Your task to perform on an android device: Search for seafood restaurants on Google Maps Image 0: 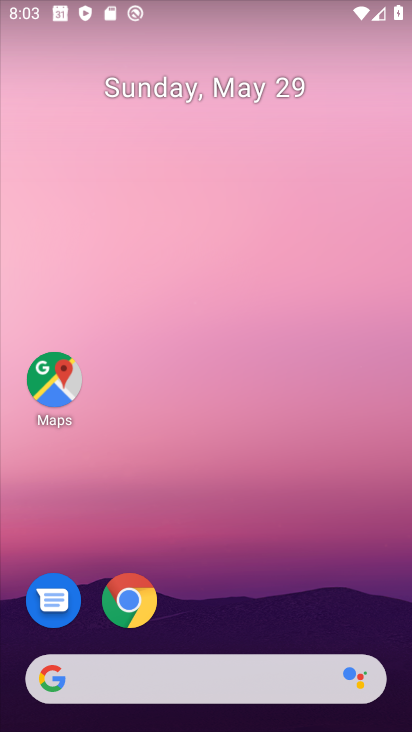
Step 0: drag from (290, 570) to (302, 113)
Your task to perform on an android device: Search for seafood restaurants on Google Maps Image 1: 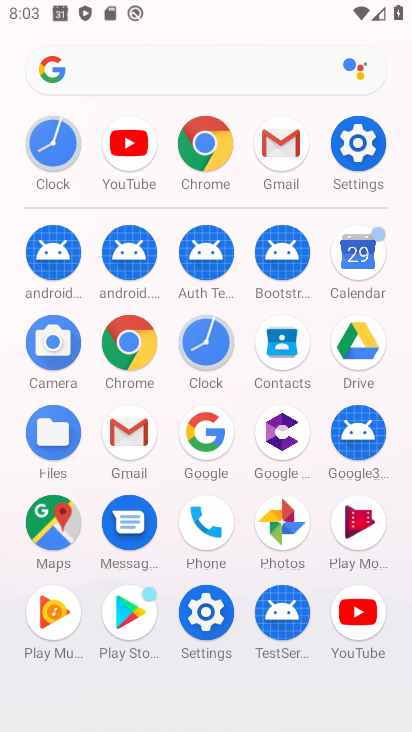
Step 1: click (49, 511)
Your task to perform on an android device: Search for seafood restaurants on Google Maps Image 2: 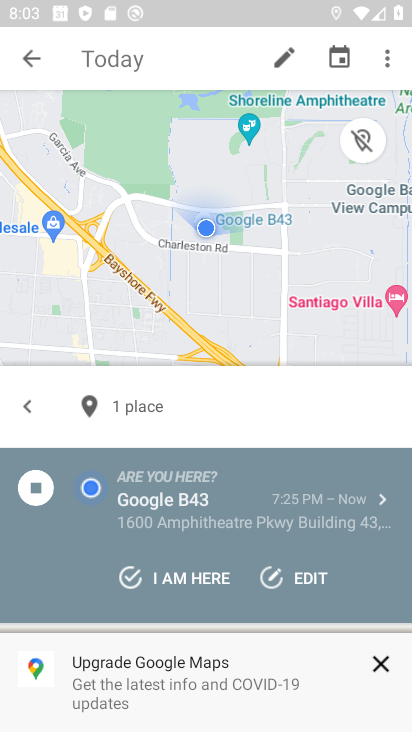
Step 2: click (40, 58)
Your task to perform on an android device: Search for seafood restaurants on Google Maps Image 3: 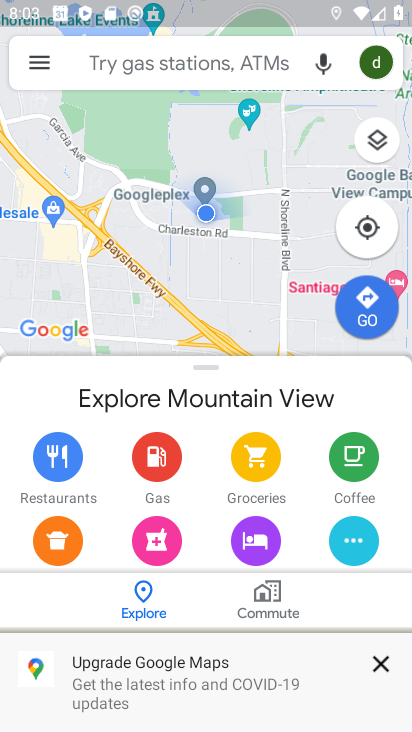
Step 3: click (149, 71)
Your task to perform on an android device: Search for seafood restaurants on Google Maps Image 4: 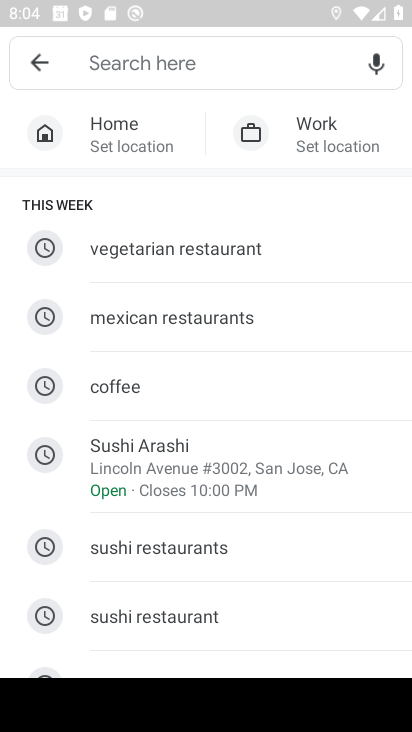
Step 4: type "seafood restaurants "
Your task to perform on an android device: Search for seafood restaurants on Google Maps Image 5: 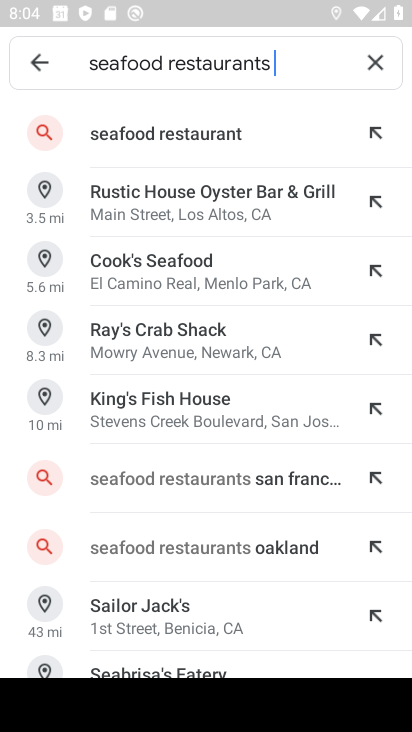
Step 5: click (250, 137)
Your task to perform on an android device: Search for seafood restaurants on Google Maps Image 6: 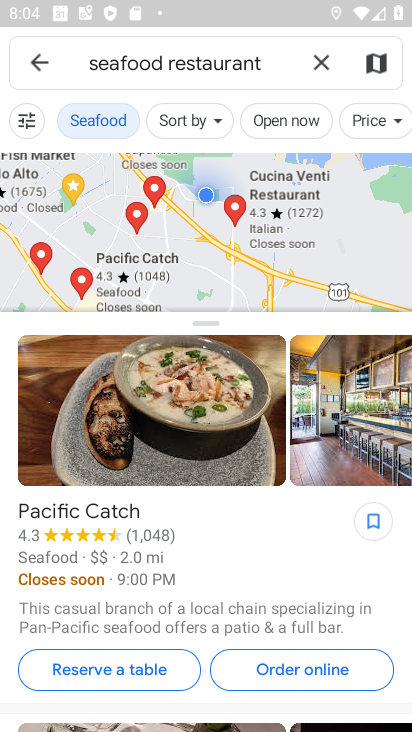
Step 6: task complete